Your task to perform on an android device: turn pop-ups on in chrome Image 0: 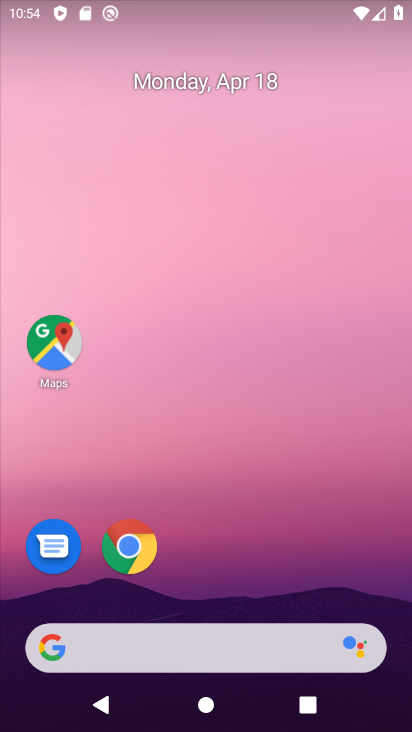
Step 0: drag from (366, 584) to (364, 89)
Your task to perform on an android device: turn pop-ups on in chrome Image 1: 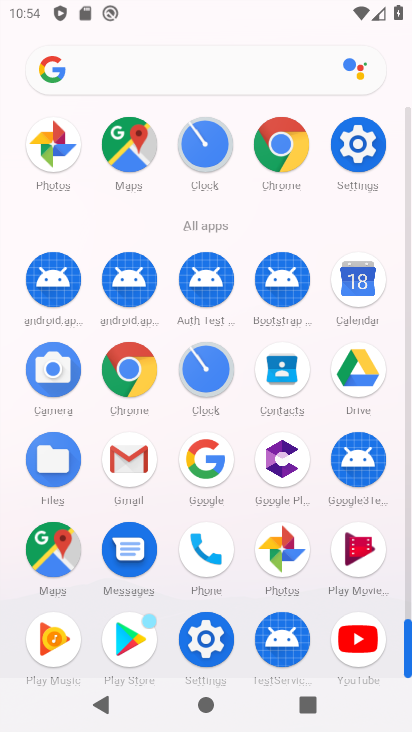
Step 1: click (131, 380)
Your task to perform on an android device: turn pop-ups on in chrome Image 2: 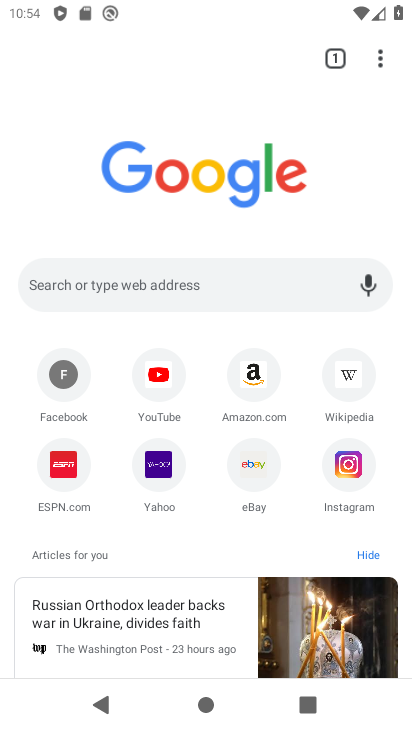
Step 2: click (380, 63)
Your task to perform on an android device: turn pop-ups on in chrome Image 3: 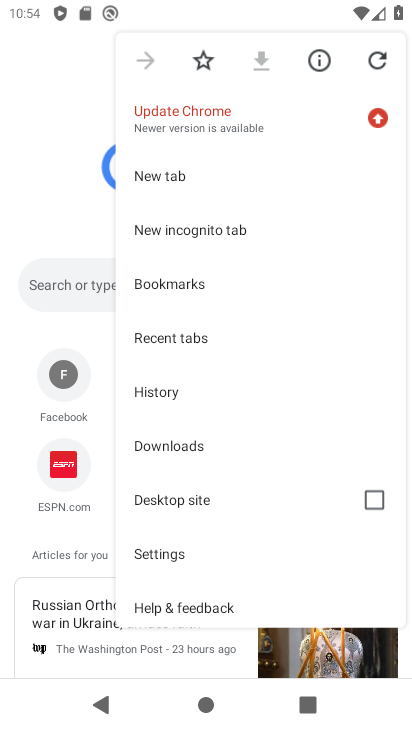
Step 3: click (173, 559)
Your task to perform on an android device: turn pop-ups on in chrome Image 4: 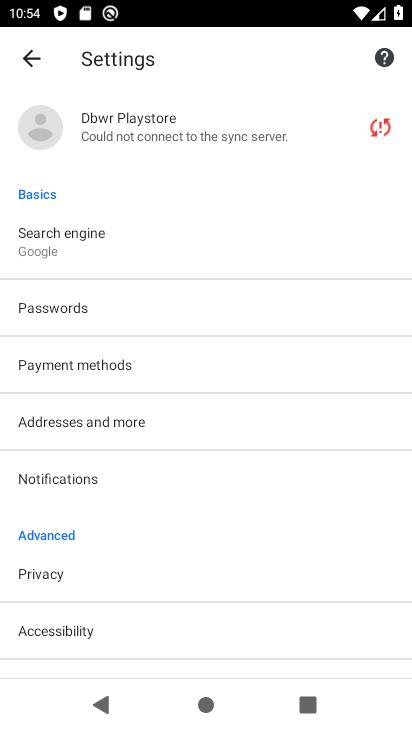
Step 4: drag from (243, 529) to (272, 282)
Your task to perform on an android device: turn pop-ups on in chrome Image 5: 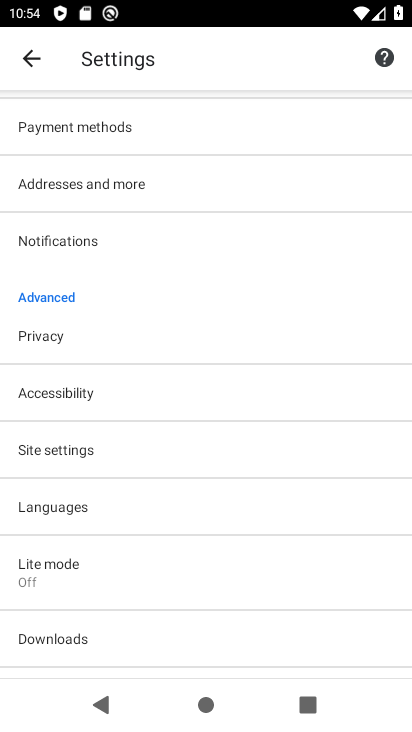
Step 5: drag from (268, 559) to (267, 350)
Your task to perform on an android device: turn pop-ups on in chrome Image 6: 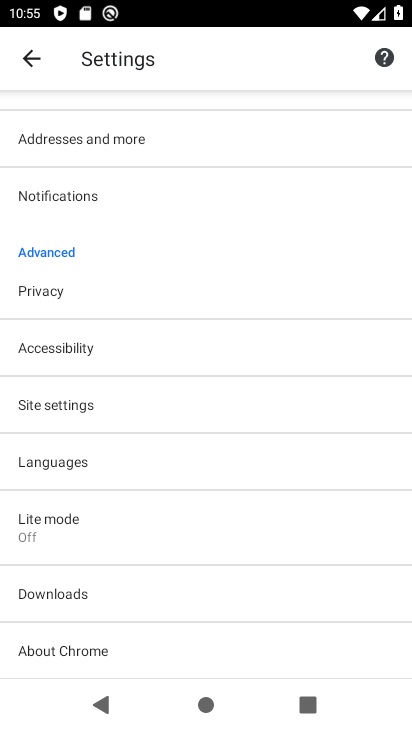
Step 6: click (217, 401)
Your task to perform on an android device: turn pop-ups on in chrome Image 7: 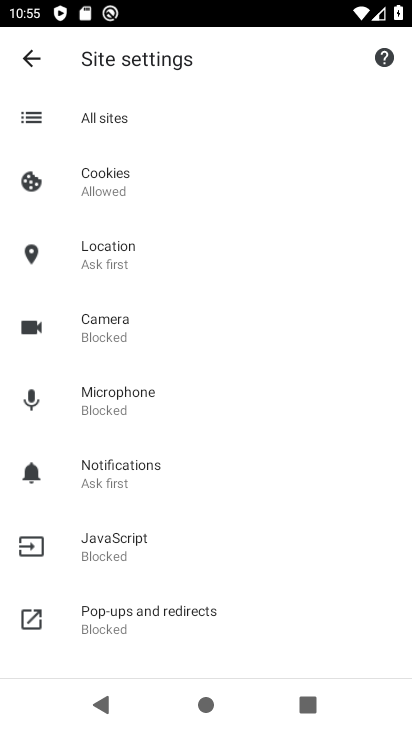
Step 7: drag from (365, 530) to (367, 398)
Your task to perform on an android device: turn pop-ups on in chrome Image 8: 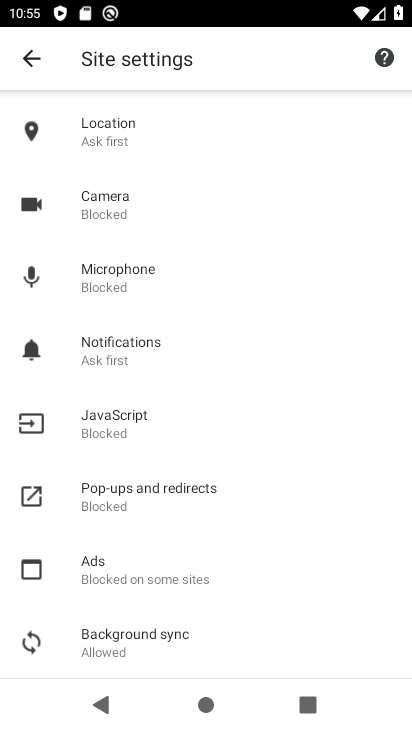
Step 8: drag from (352, 560) to (379, 320)
Your task to perform on an android device: turn pop-ups on in chrome Image 9: 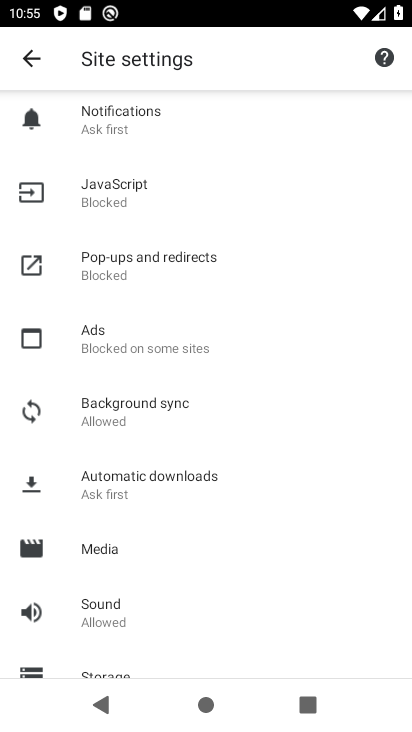
Step 9: drag from (357, 574) to (360, 323)
Your task to perform on an android device: turn pop-ups on in chrome Image 10: 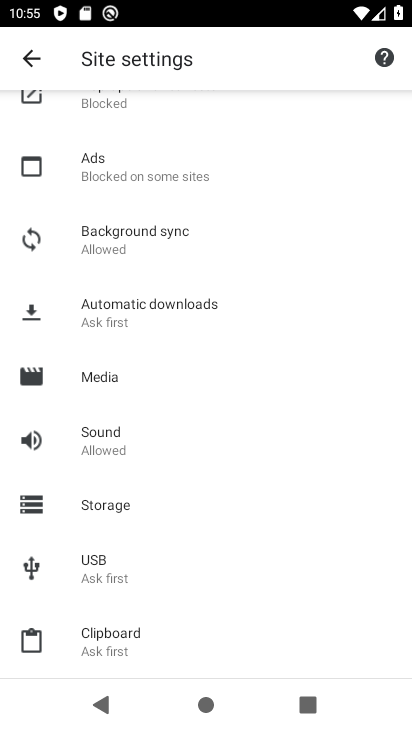
Step 10: drag from (346, 255) to (346, 419)
Your task to perform on an android device: turn pop-ups on in chrome Image 11: 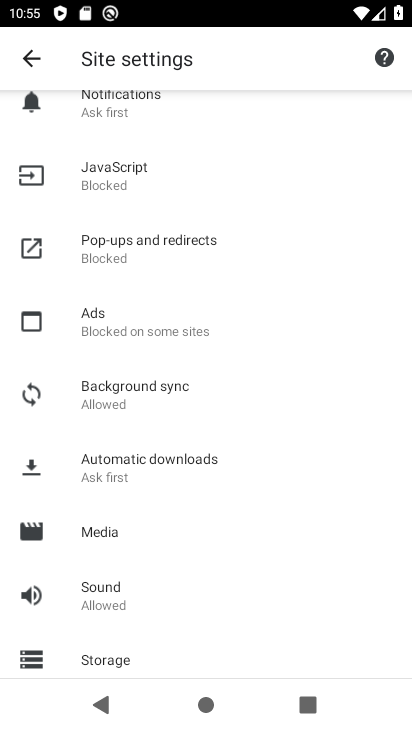
Step 11: drag from (338, 281) to (320, 435)
Your task to perform on an android device: turn pop-ups on in chrome Image 12: 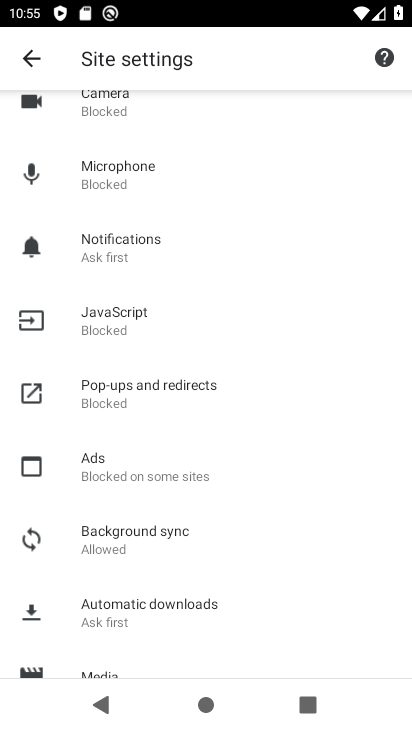
Step 12: click (154, 394)
Your task to perform on an android device: turn pop-ups on in chrome Image 13: 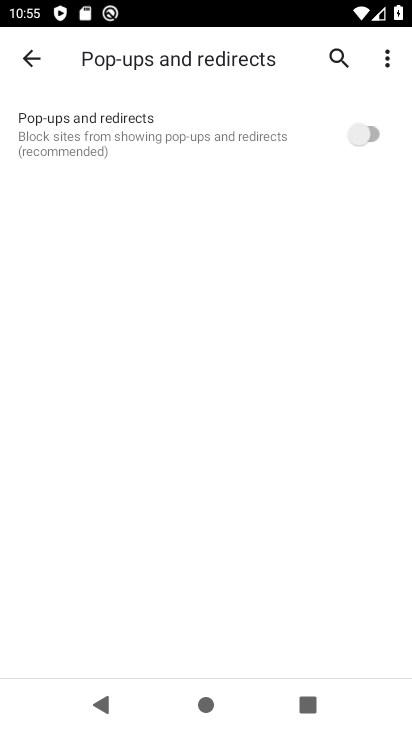
Step 13: click (366, 133)
Your task to perform on an android device: turn pop-ups on in chrome Image 14: 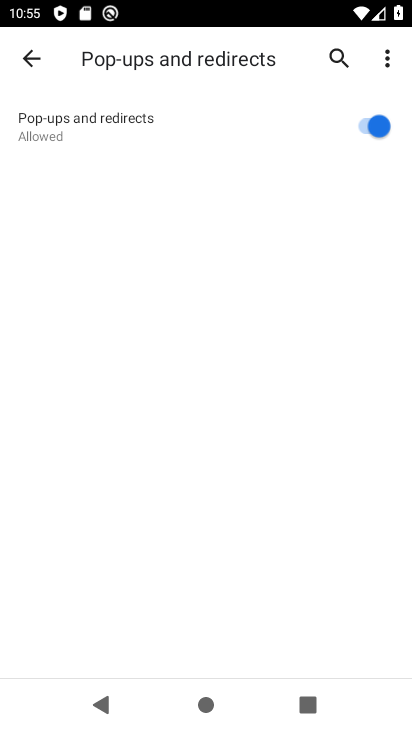
Step 14: task complete